Your task to perform on an android device: turn on translation in the chrome app Image 0: 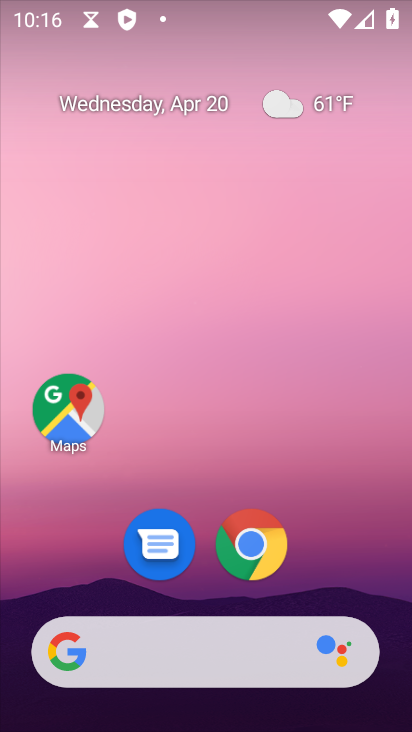
Step 0: drag from (181, 640) to (289, 166)
Your task to perform on an android device: turn on translation in the chrome app Image 1: 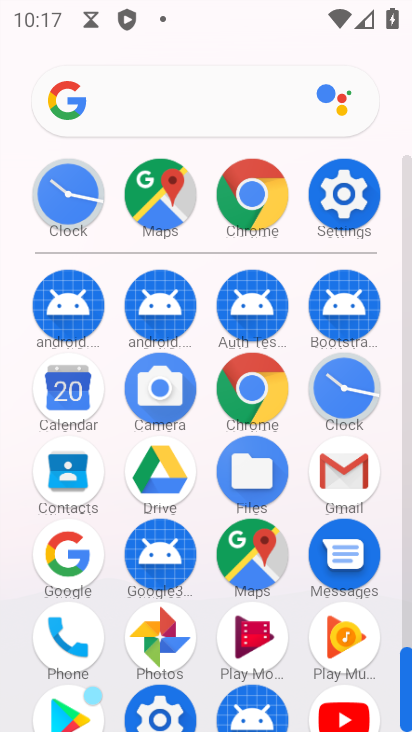
Step 1: click (250, 213)
Your task to perform on an android device: turn on translation in the chrome app Image 2: 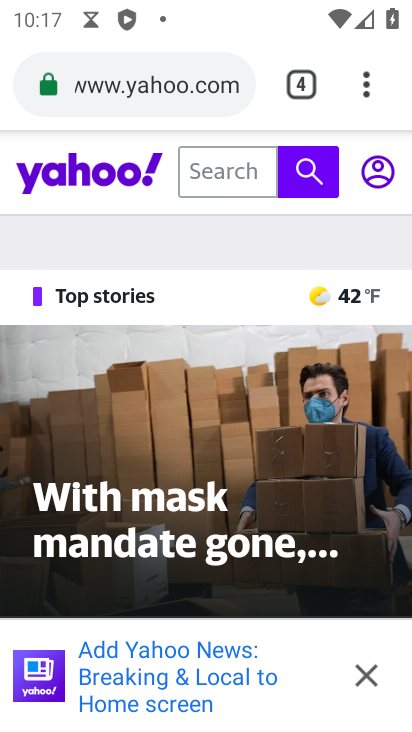
Step 2: click (360, 98)
Your task to perform on an android device: turn on translation in the chrome app Image 3: 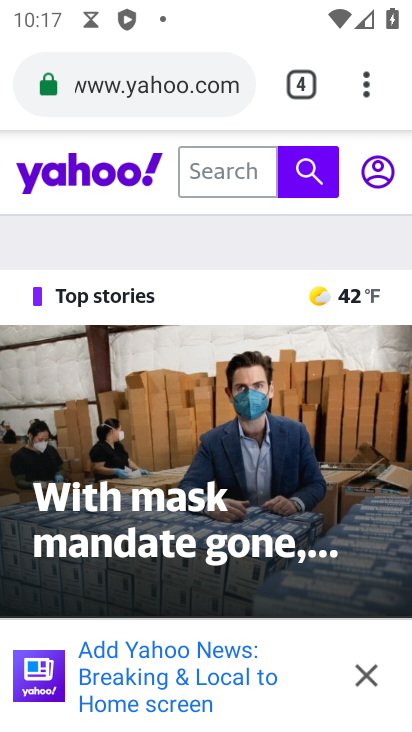
Step 3: click (368, 97)
Your task to perform on an android device: turn on translation in the chrome app Image 4: 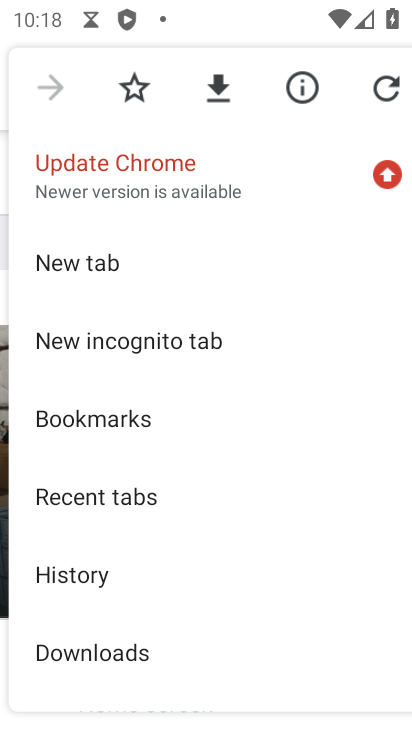
Step 4: drag from (163, 592) to (343, 172)
Your task to perform on an android device: turn on translation in the chrome app Image 5: 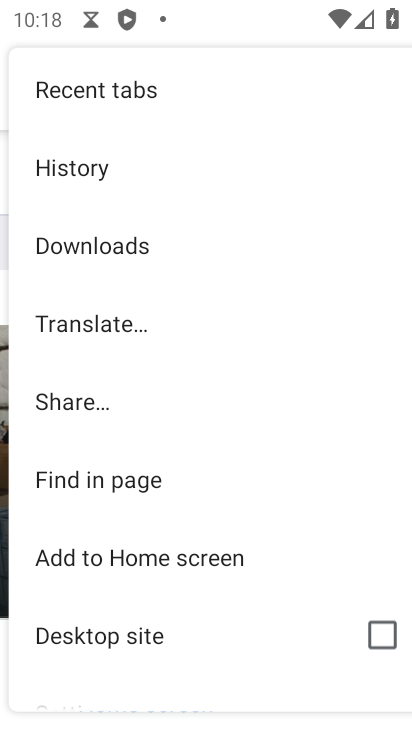
Step 5: drag from (244, 517) to (378, 70)
Your task to perform on an android device: turn on translation in the chrome app Image 6: 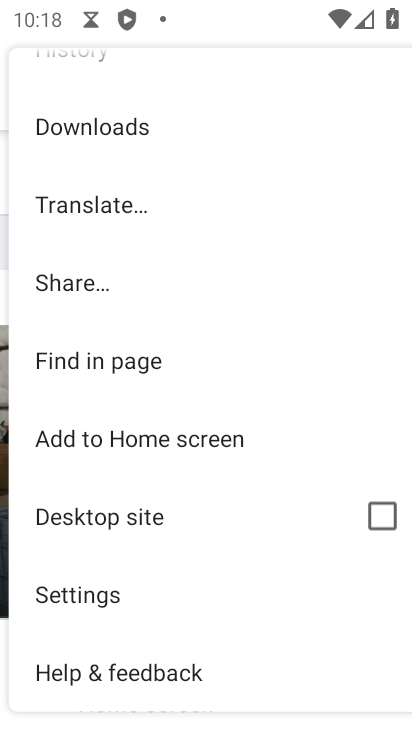
Step 6: click (63, 593)
Your task to perform on an android device: turn on translation in the chrome app Image 7: 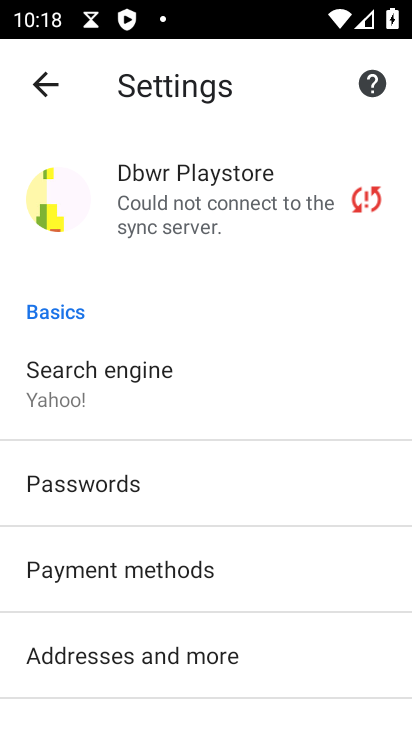
Step 7: drag from (100, 554) to (271, 207)
Your task to perform on an android device: turn on translation in the chrome app Image 8: 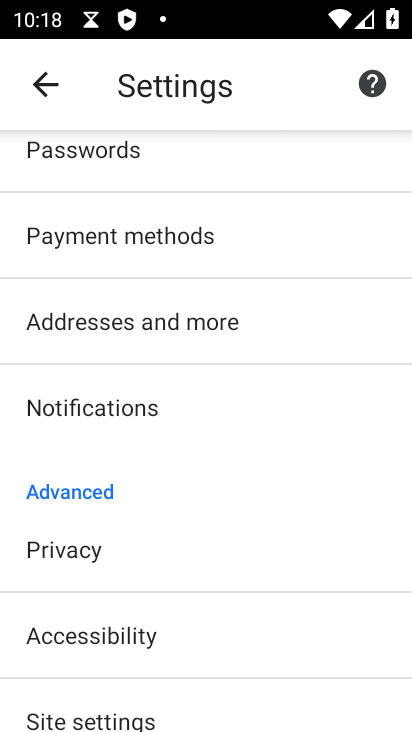
Step 8: drag from (189, 563) to (347, 171)
Your task to perform on an android device: turn on translation in the chrome app Image 9: 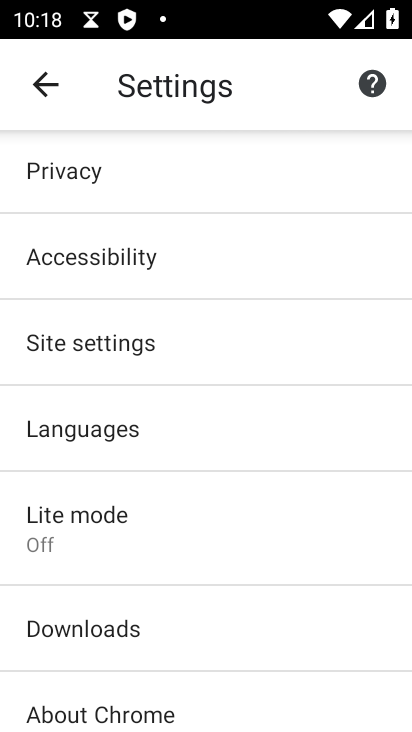
Step 9: click (127, 433)
Your task to perform on an android device: turn on translation in the chrome app Image 10: 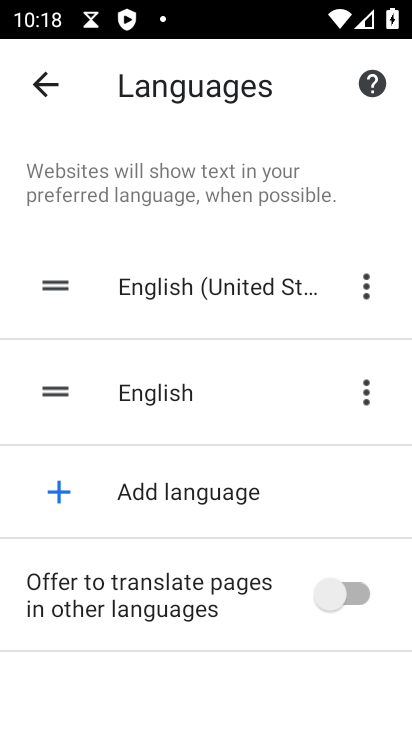
Step 10: click (348, 589)
Your task to perform on an android device: turn on translation in the chrome app Image 11: 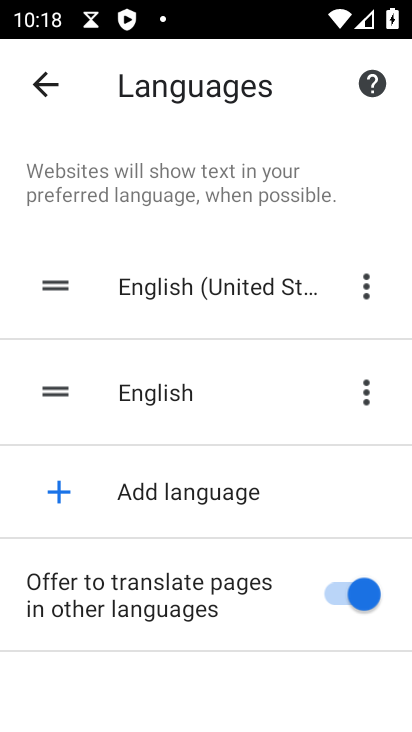
Step 11: task complete